Your task to perform on an android device: Open Reddit.com Image 0: 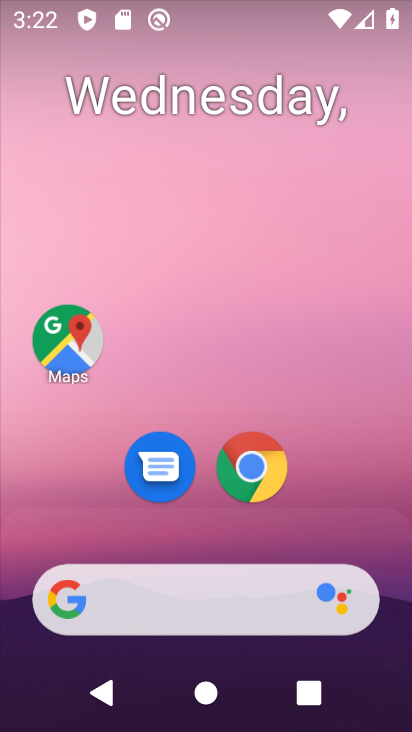
Step 0: click (152, 607)
Your task to perform on an android device: Open Reddit.com Image 1: 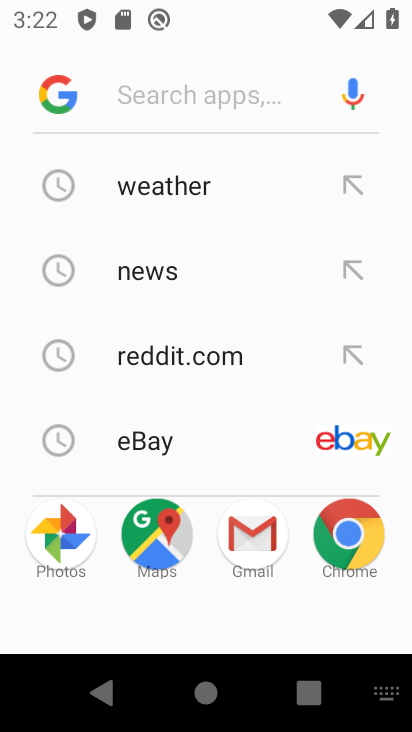
Step 1: type "reddit.com"
Your task to perform on an android device: Open Reddit.com Image 2: 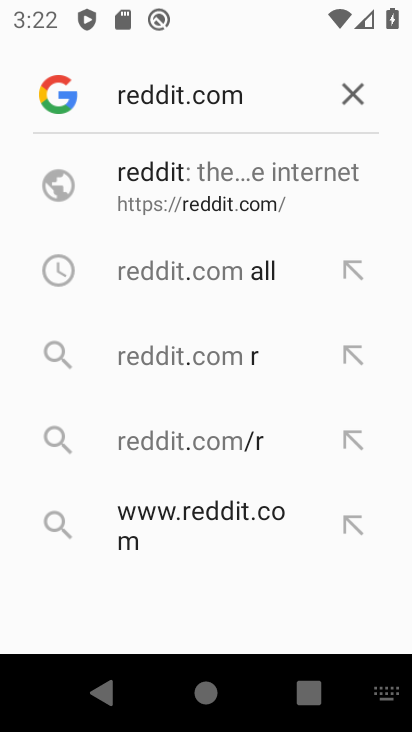
Step 2: click (202, 221)
Your task to perform on an android device: Open Reddit.com Image 3: 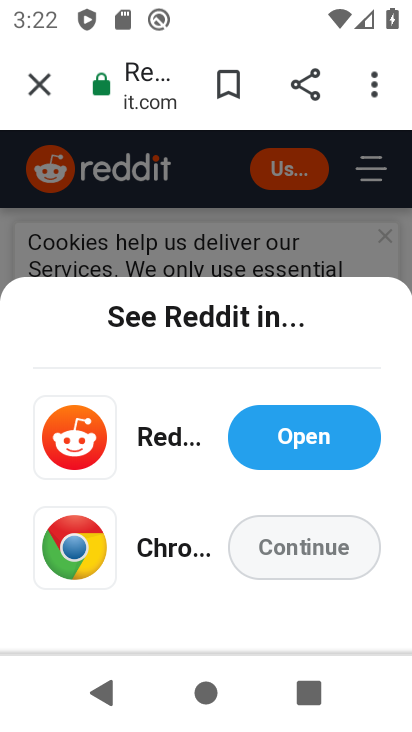
Step 3: click (289, 548)
Your task to perform on an android device: Open Reddit.com Image 4: 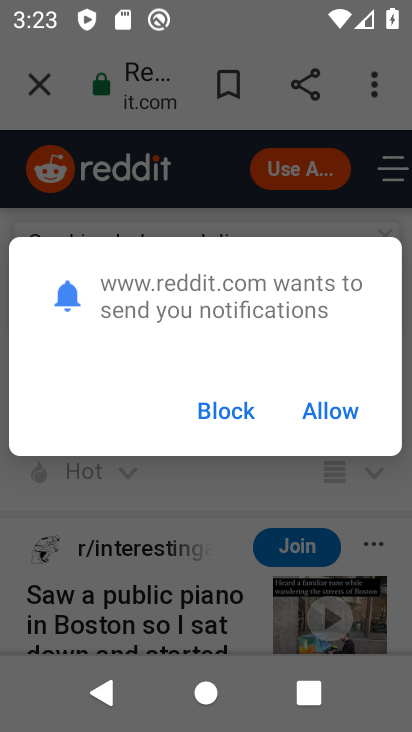
Step 4: click (372, 431)
Your task to perform on an android device: Open Reddit.com Image 5: 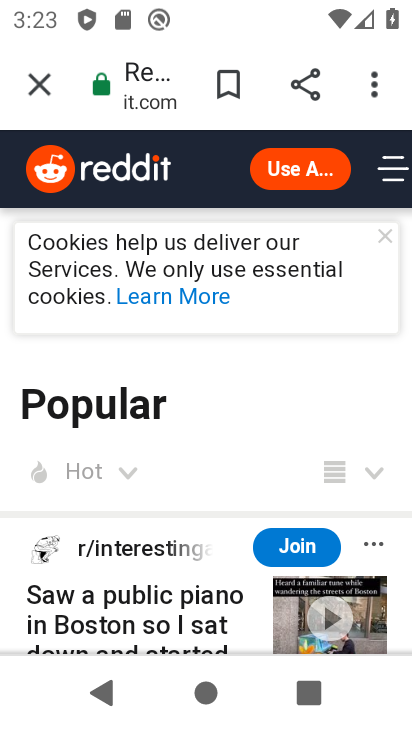
Step 5: task complete